Your task to perform on an android device: clear all cookies in the chrome app Image 0: 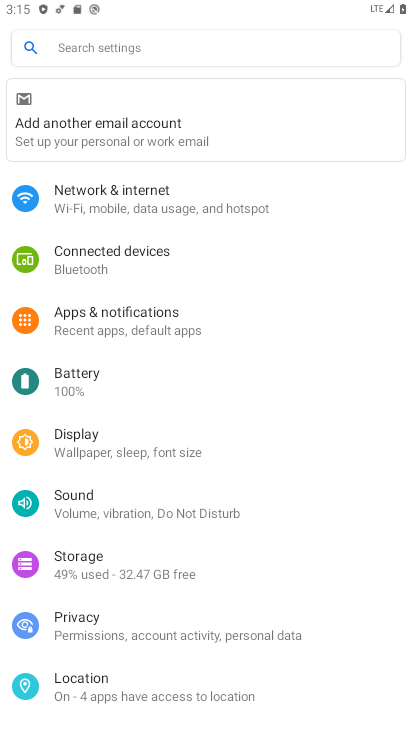
Step 0: press home button
Your task to perform on an android device: clear all cookies in the chrome app Image 1: 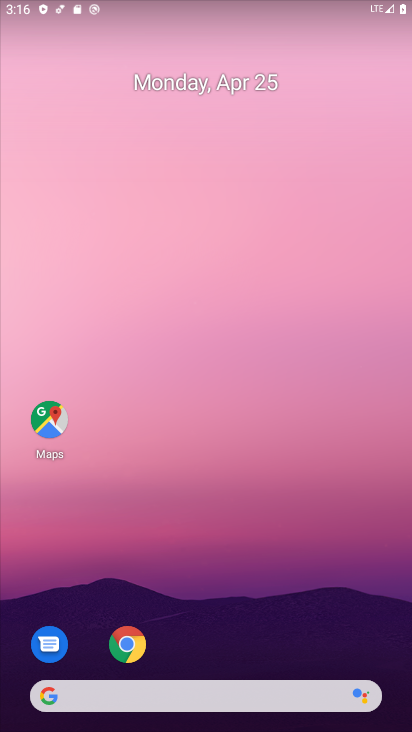
Step 1: click (148, 636)
Your task to perform on an android device: clear all cookies in the chrome app Image 2: 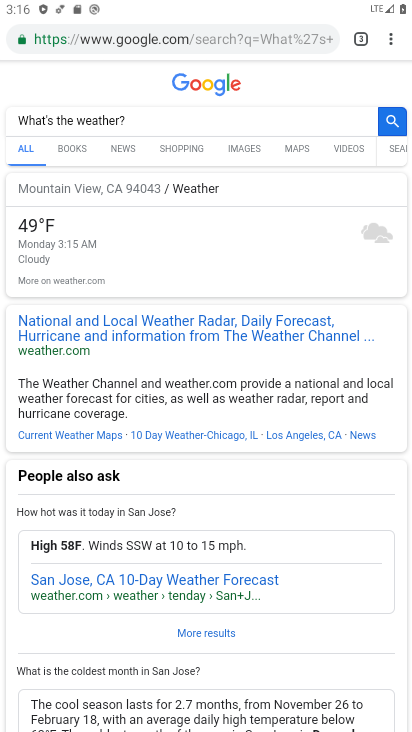
Step 2: drag from (395, 38) to (328, 262)
Your task to perform on an android device: clear all cookies in the chrome app Image 3: 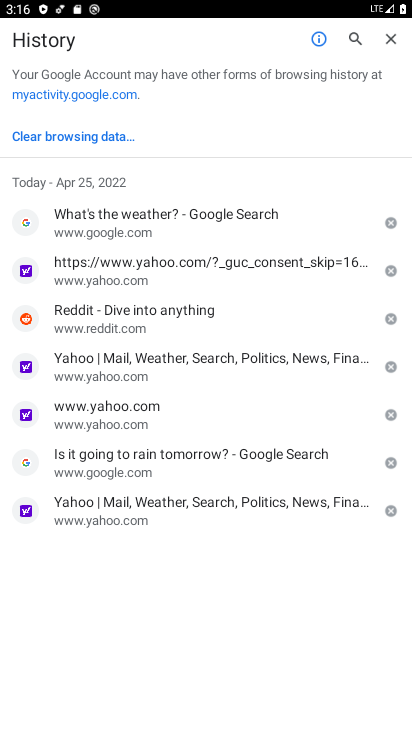
Step 3: click (37, 136)
Your task to perform on an android device: clear all cookies in the chrome app Image 4: 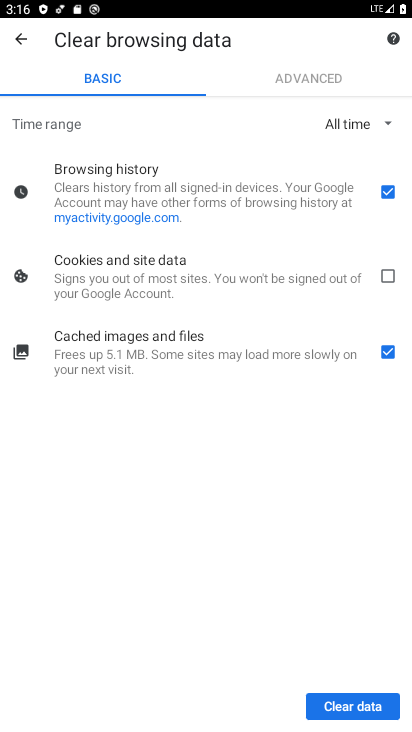
Step 4: click (353, 707)
Your task to perform on an android device: clear all cookies in the chrome app Image 5: 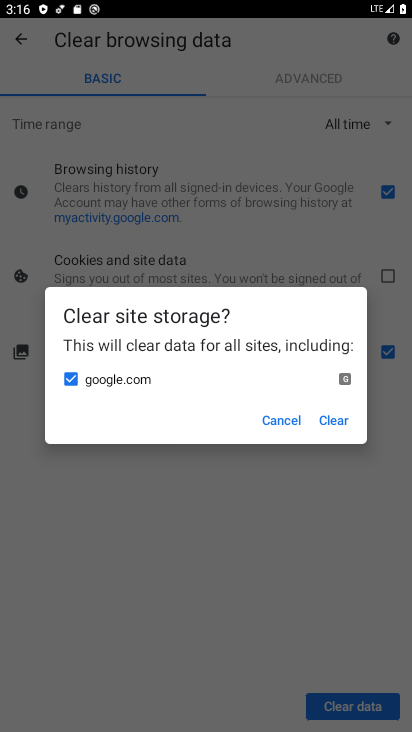
Step 5: click (331, 421)
Your task to perform on an android device: clear all cookies in the chrome app Image 6: 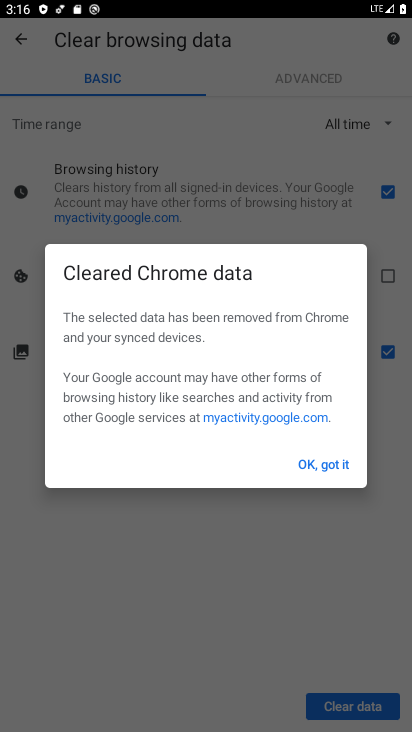
Step 6: click (328, 455)
Your task to perform on an android device: clear all cookies in the chrome app Image 7: 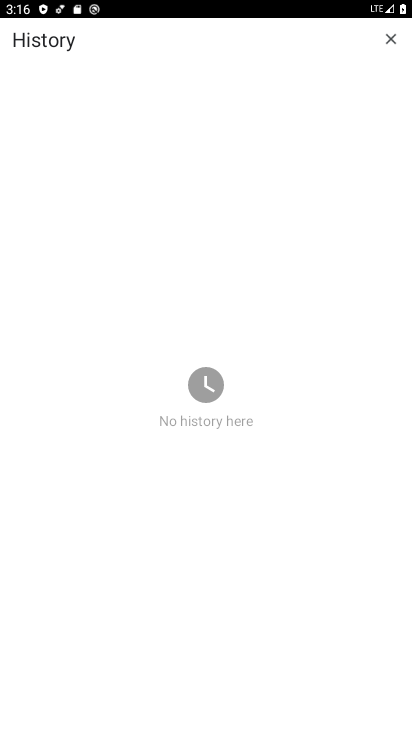
Step 7: task complete